Your task to perform on an android device: toggle priority inbox in the gmail app Image 0: 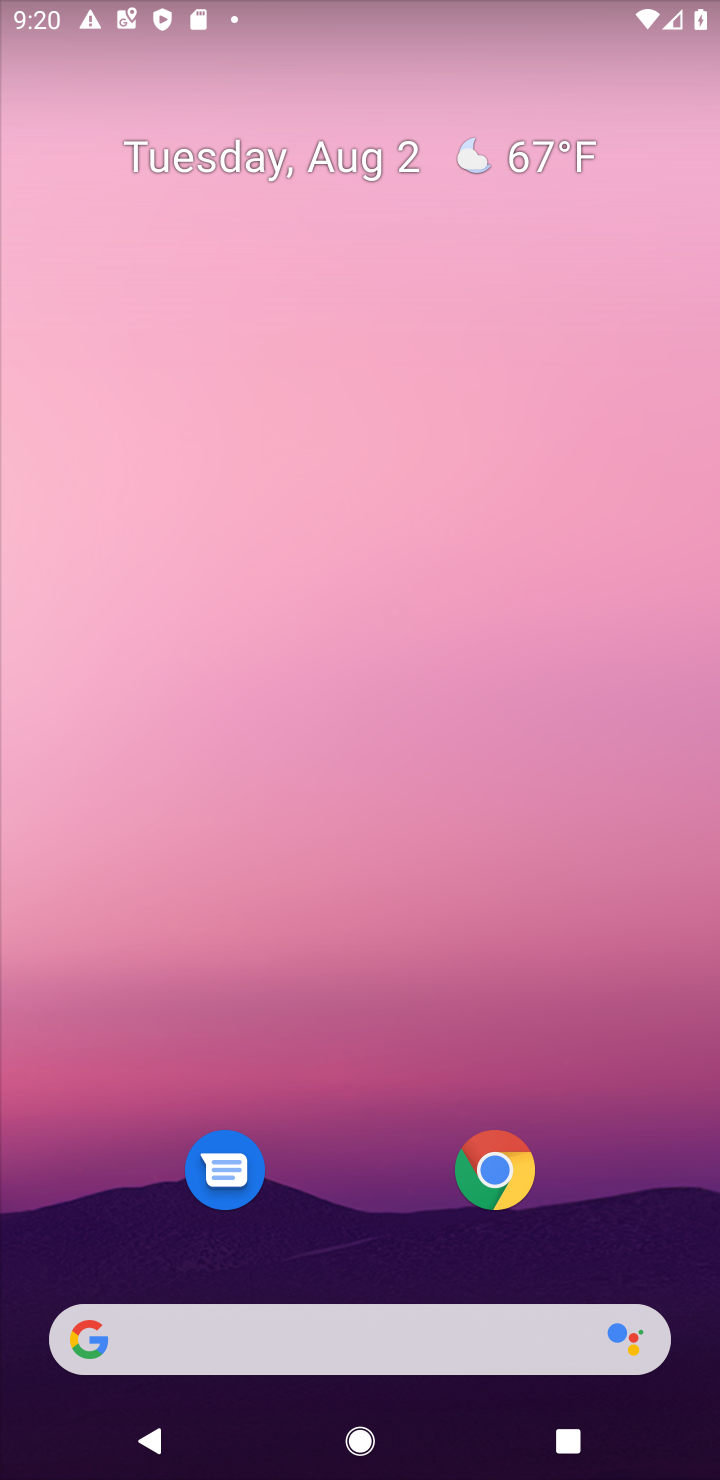
Step 0: drag from (363, 994) to (475, 92)
Your task to perform on an android device: toggle priority inbox in the gmail app Image 1: 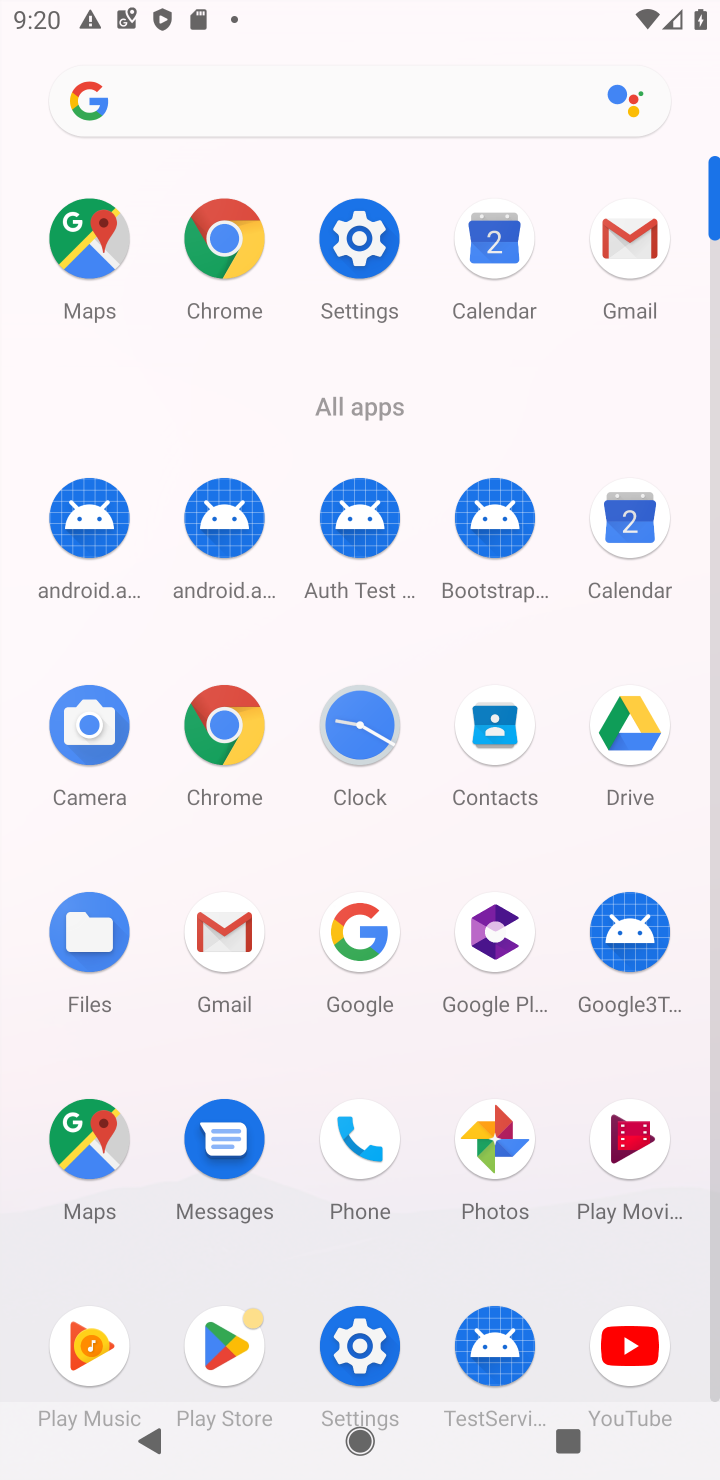
Step 1: click (629, 272)
Your task to perform on an android device: toggle priority inbox in the gmail app Image 2: 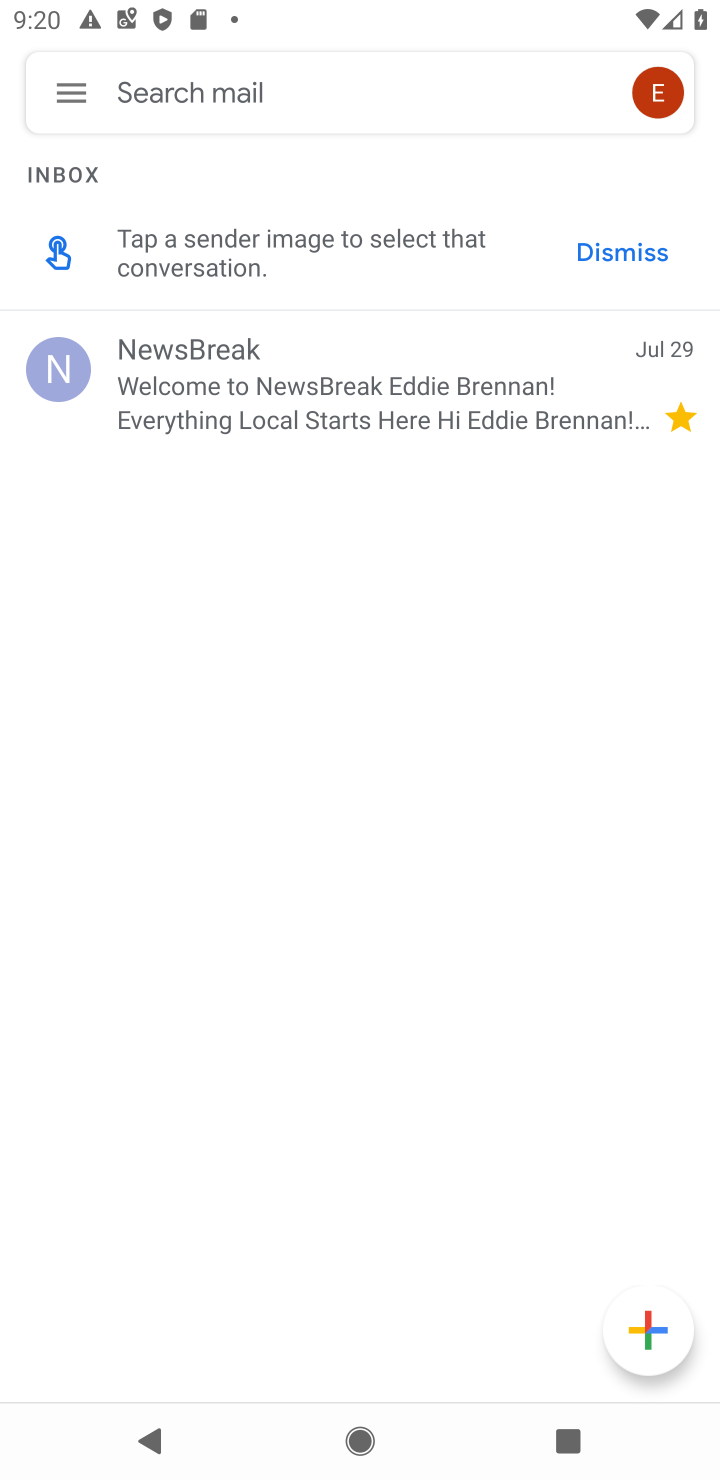
Step 2: click (57, 94)
Your task to perform on an android device: toggle priority inbox in the gmail app Image 3: 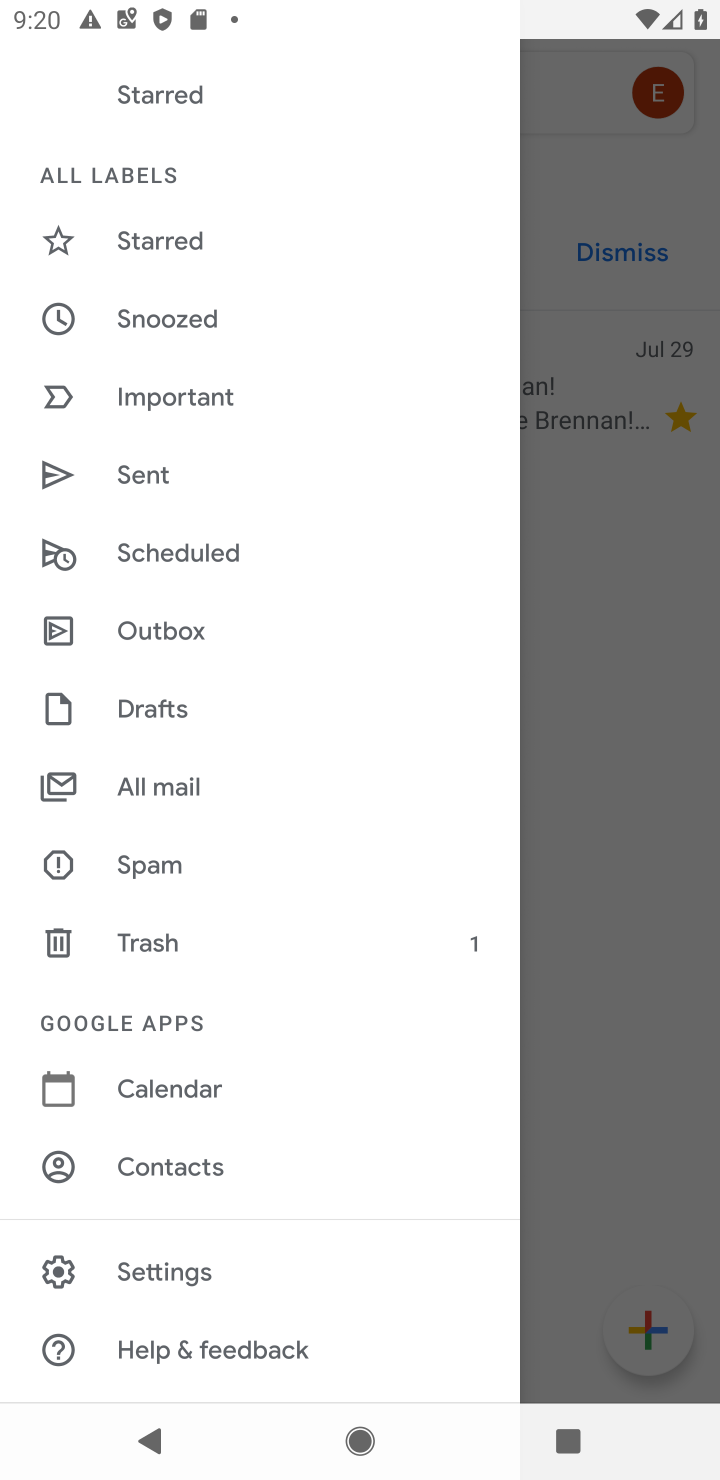
Step 3: click (166, 1252)
Your task to perform on an android device: toggle priority inbox in the gmail app Image 4: 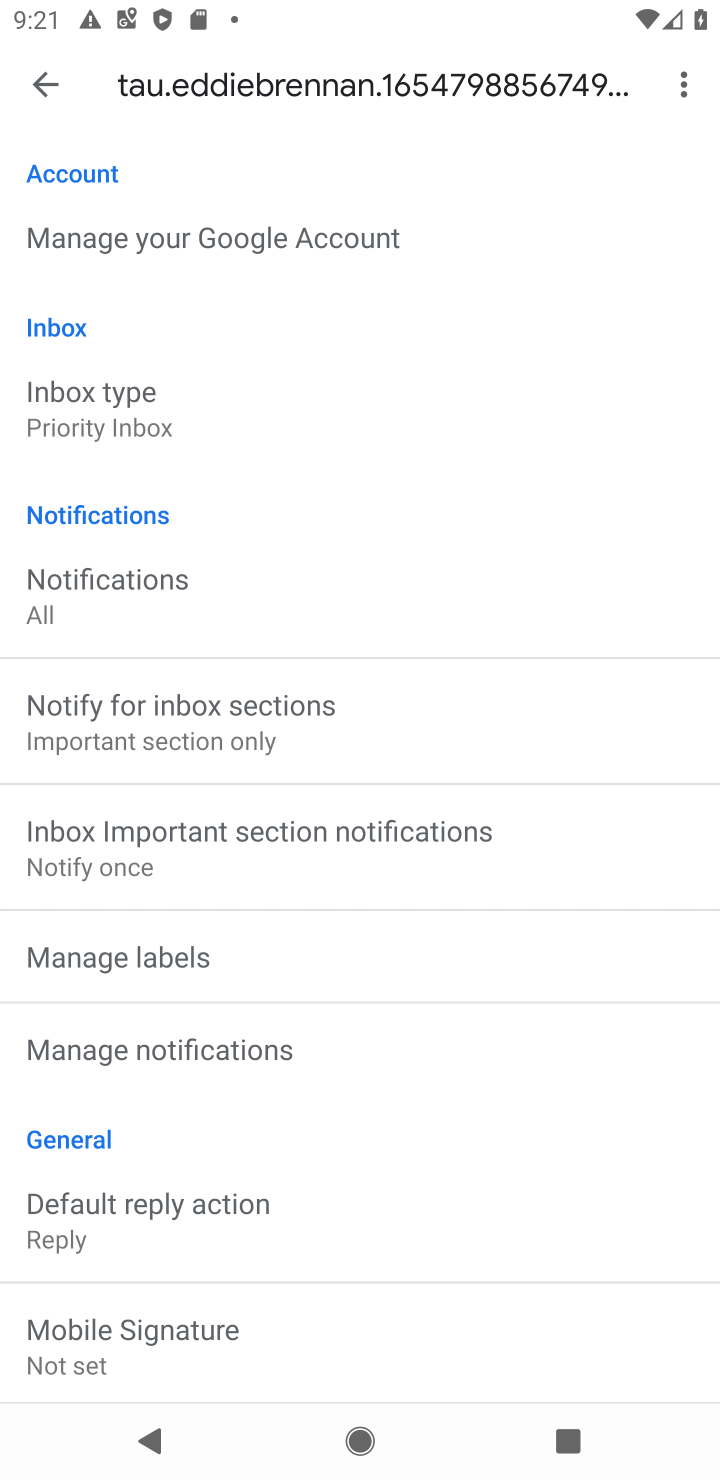
Step 4: drag from (208, 1178) to (243, 953)
Your task to perform on an android device: toggle priority inbox in the gmail app Image 5: 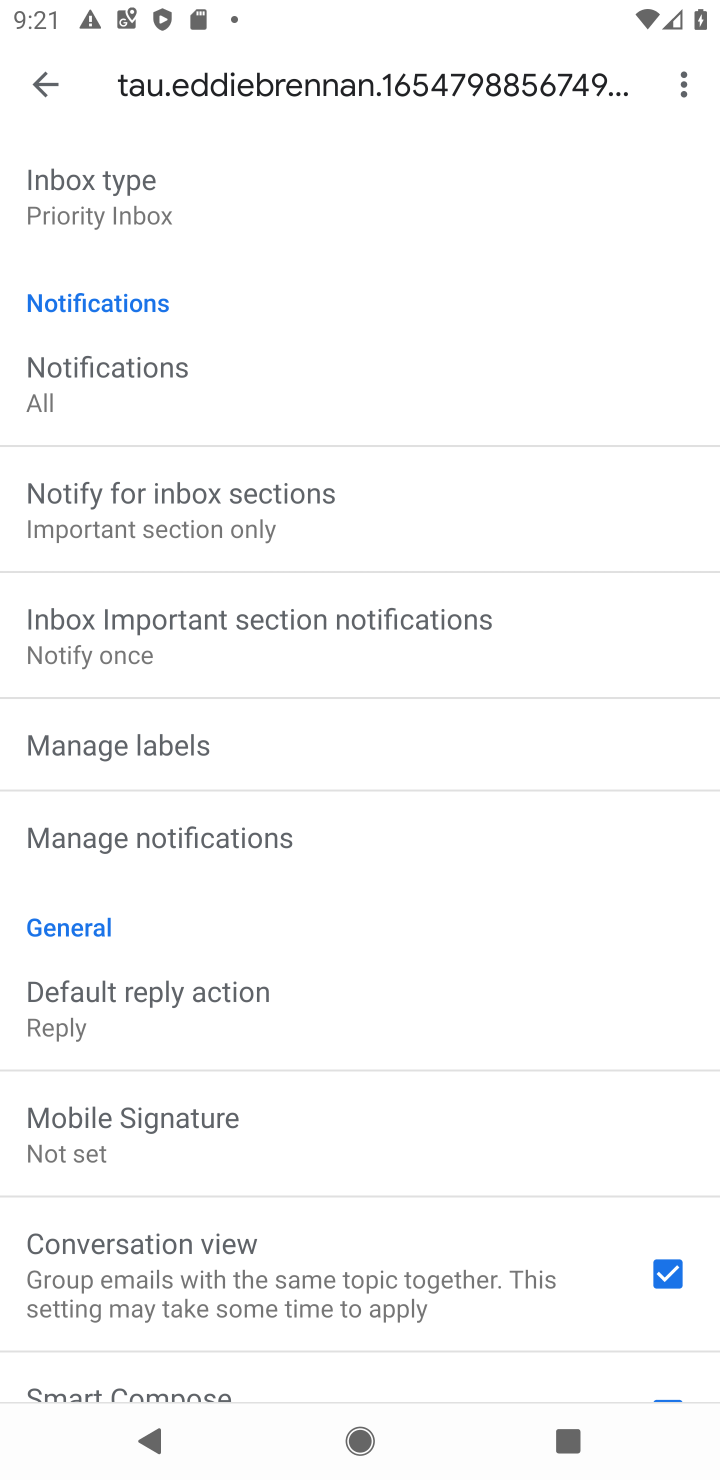
Step 5: click (106, 193)
Your task to perform on an android device: toggle priority inbox in the gmail app Image 6: 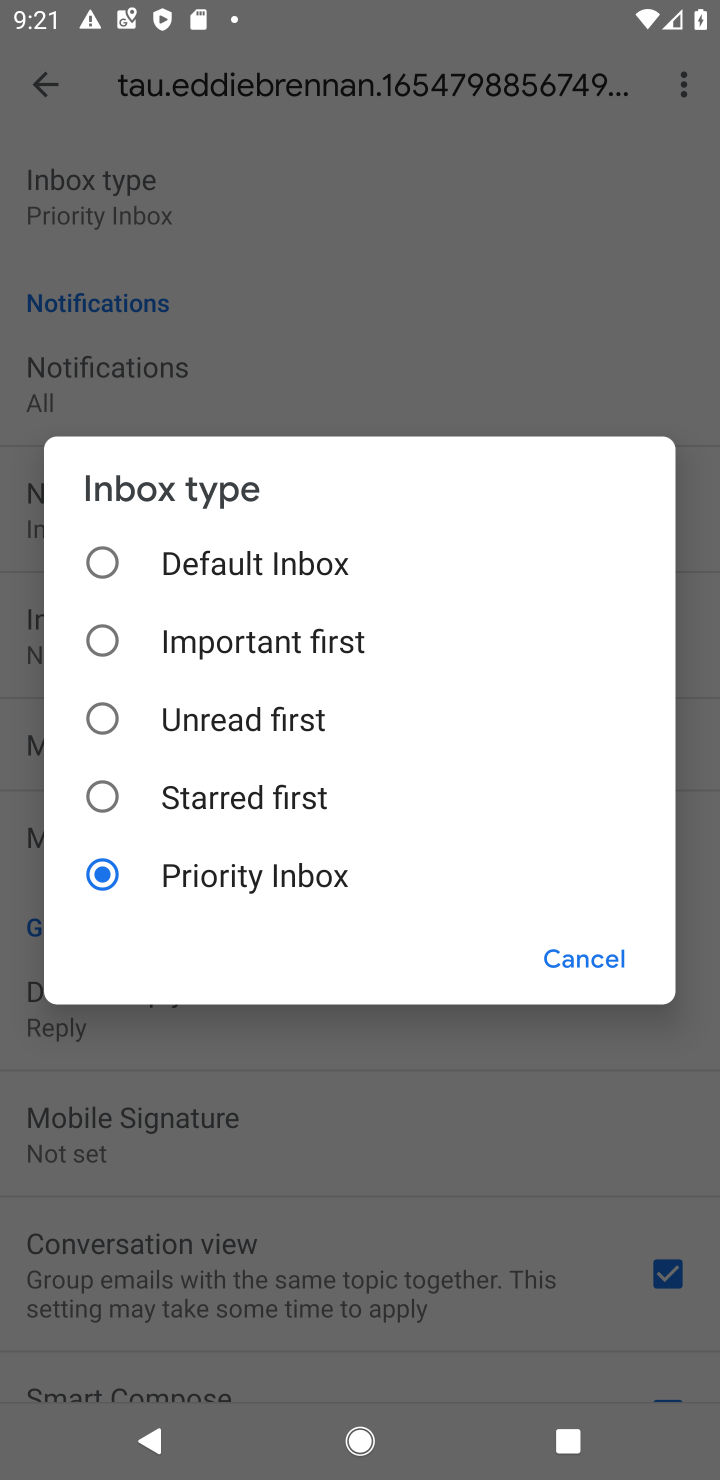
Step 6: click (106, 559)
Your task to perform on an android device: toggle priority inbox in the gmail app Image 7: 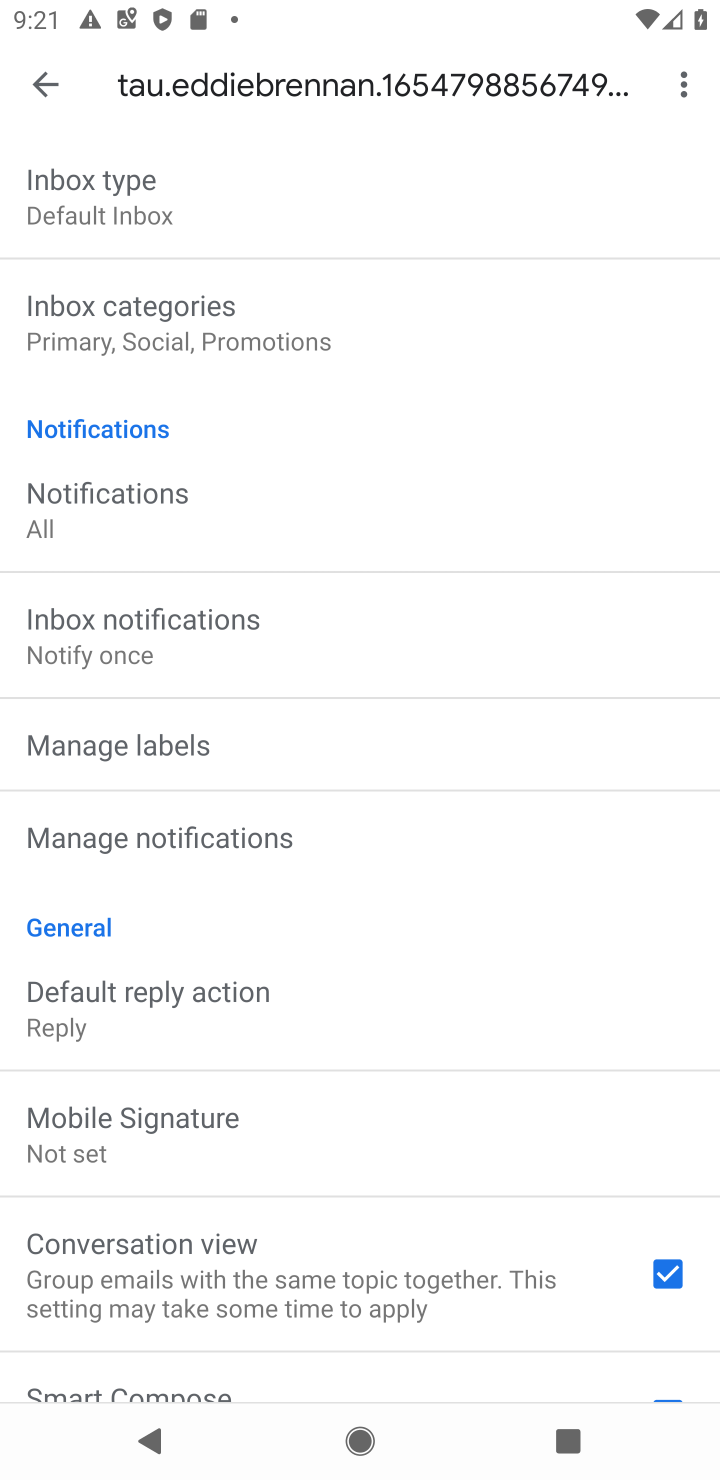
Step 7: task complete